Your task to perform on an android device: turn on javascript in the chrome app Image 0: 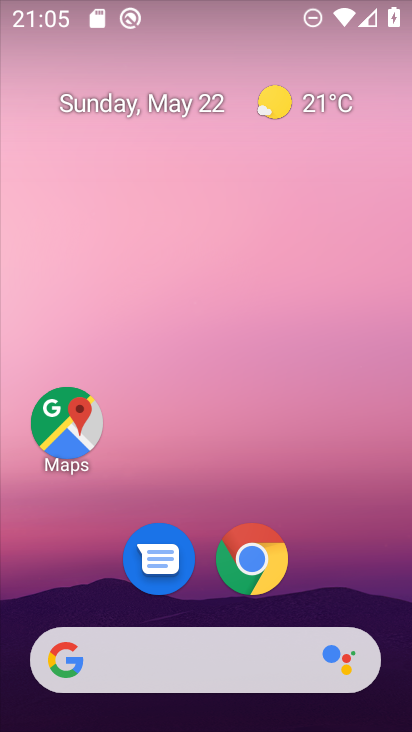
Step 0: drag from (279, 707) to (254, 87)
Your task to perform on an android device: turn on javascript in the chrome app Image 1: 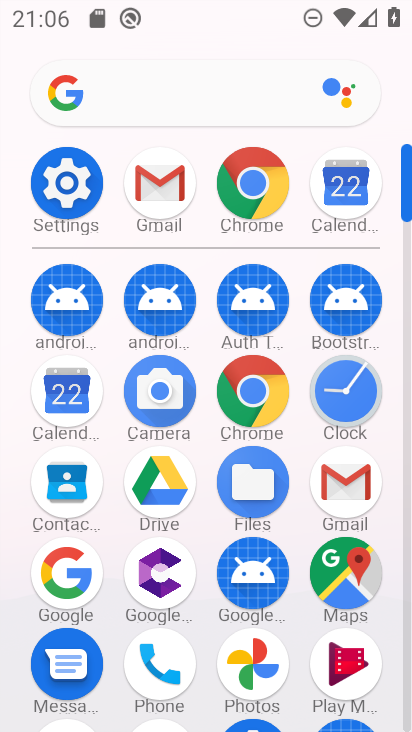
Step 1: click (244, 204)
Your task to perform on an android device: turn on javascript in the chrome app Image 2: 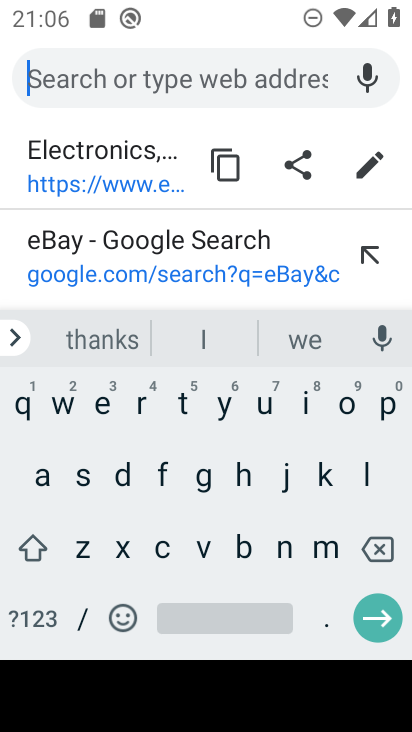
Step 2: press back button
Your task to perform on an android device: turn on javascript in the chrome app Image 3: 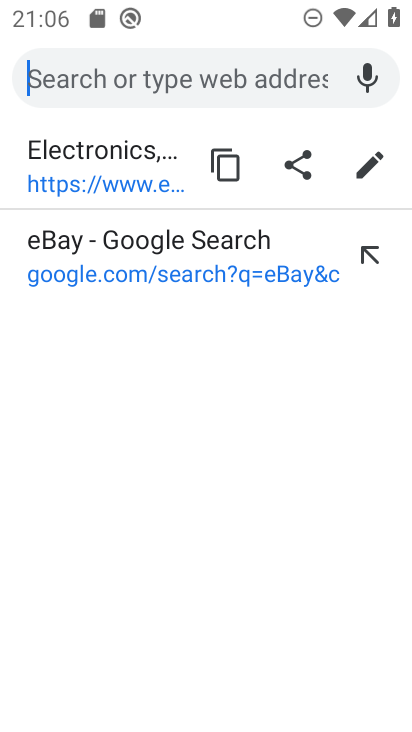
Step 3: press back button
Your task to perform on an android device: turn on javascript in the chrome app Image 4: 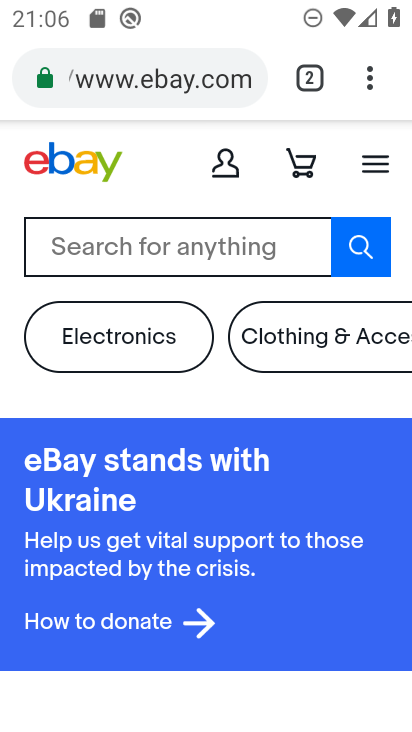
Step 4: click (370, 93)
Your task to perform on an android device: turn on javascript in the chrome app Image 5: 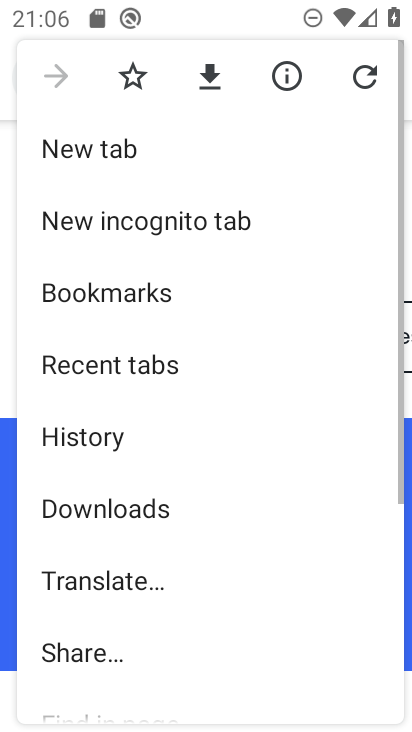
Step 5: drag from (199, 589) to (179, 279)
Your task to perform on an android device: turn on javascript in the chrome app Image 6: 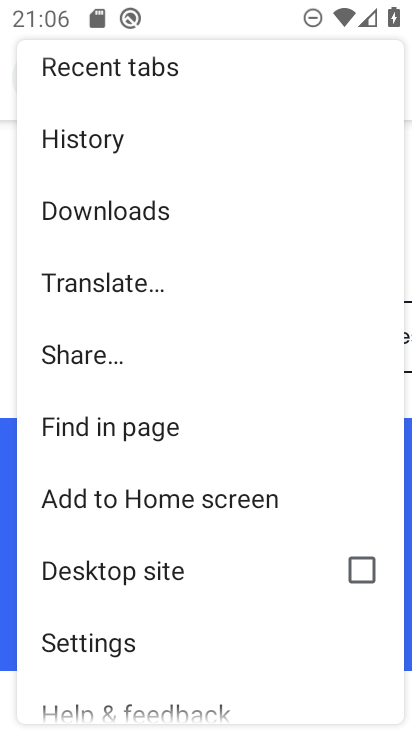
Step 6: click (124, 639)
Your task to perform on an android device: turn on javascript in the chrome app Image 7: 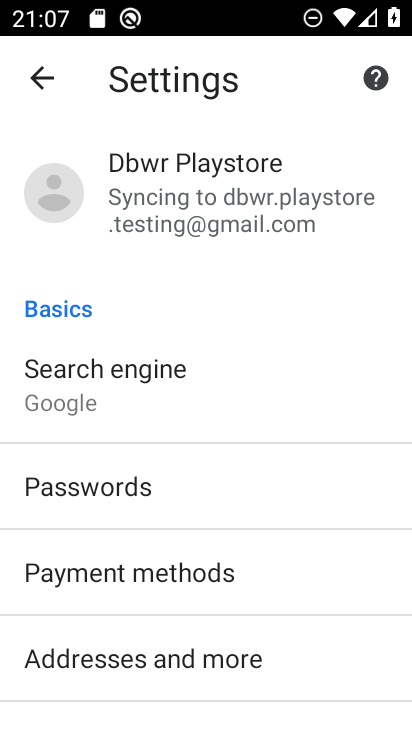
Step 7: drag from (120, 642) to (202, 249)
Your task to perform on an android device: turn on javascript in the chrome app Image 8: 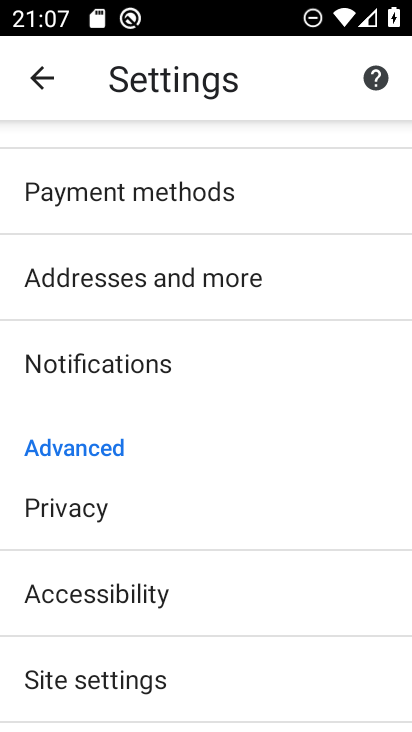
Step 8: drag from (128, 593) to (165, 487)
Your task to perform on an android device: turn on javascript in the chrome app Image 9: 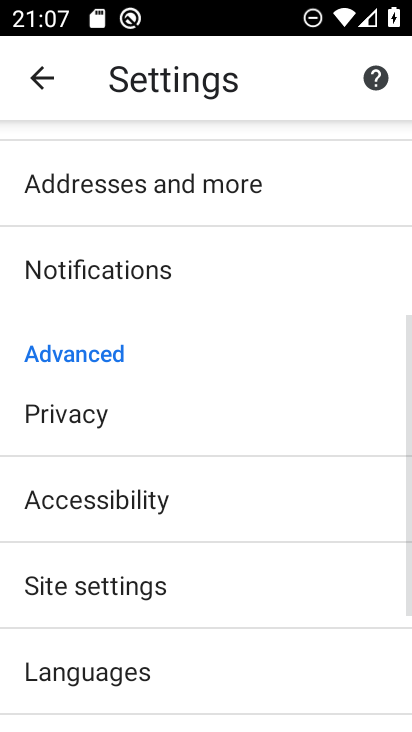
Step 9: click (129, 587)
Your task to perform on an android device: turn on javascript in the chrome app Image 10: 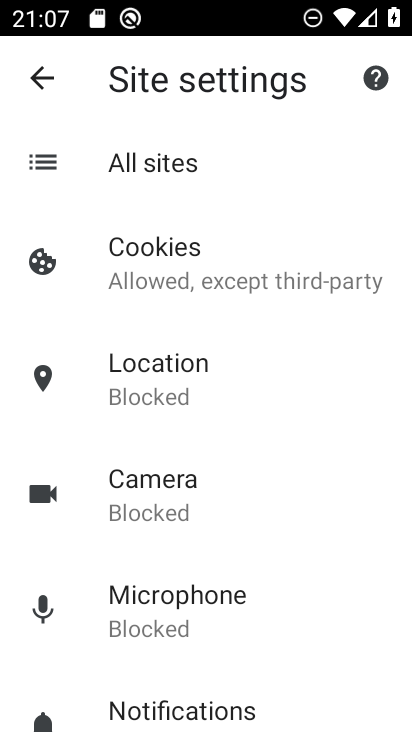
Step 10: drag from (215, 610) to (214, 306)
Your task to perform on an android device: turn on javascript in the chrome app Image 11: 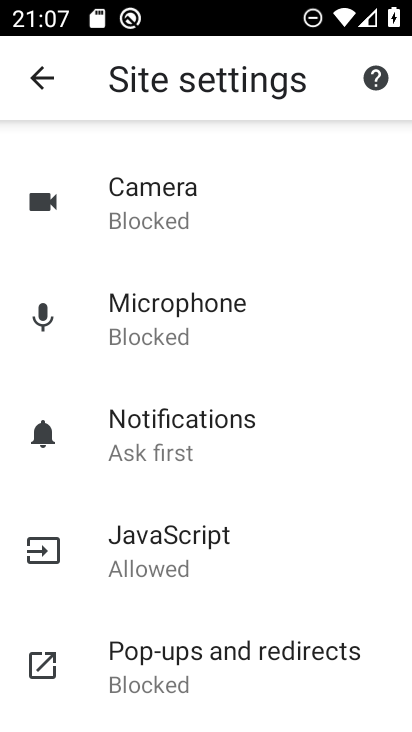
Step 11: click (200, 553)
Your task to perform on an android device: turn on javascript in the chrome app Image 12: 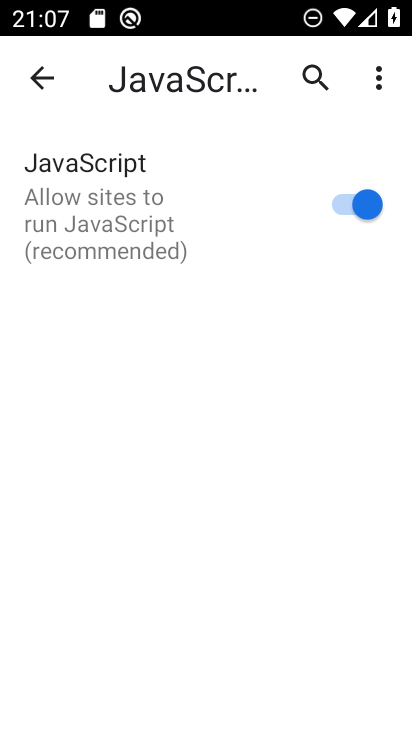
Step 12: task complete